Your task to perform on an android device: toggle notification dots Image 0: 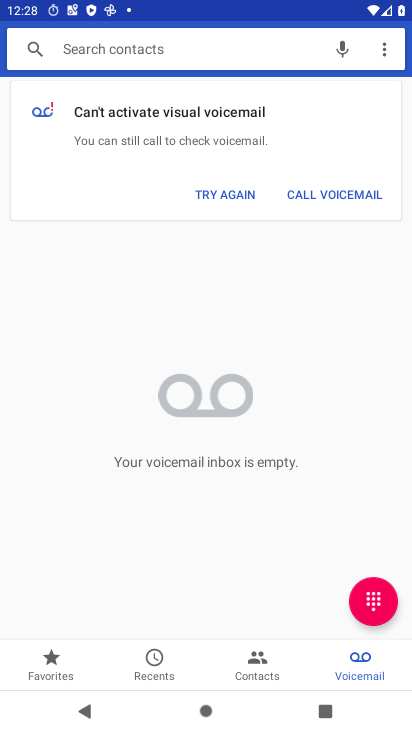
Step 0: press home button
Your task to perform on an android device: toggle notification dots Image 1: 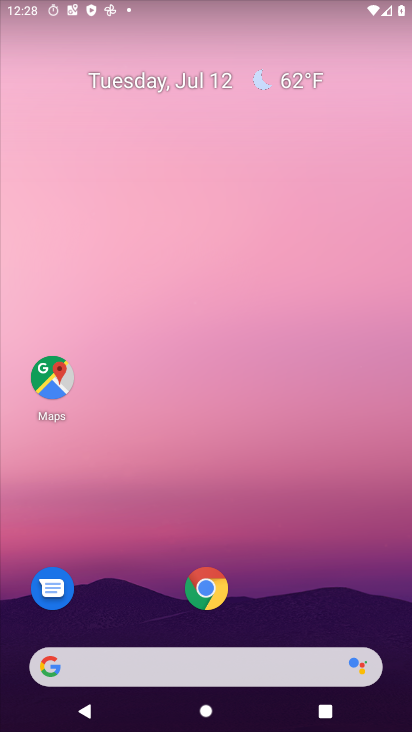
Step 1: drag from (181, 329) to (181, 262)
Your task to perform on an android device: toggle notification dots Image 2: 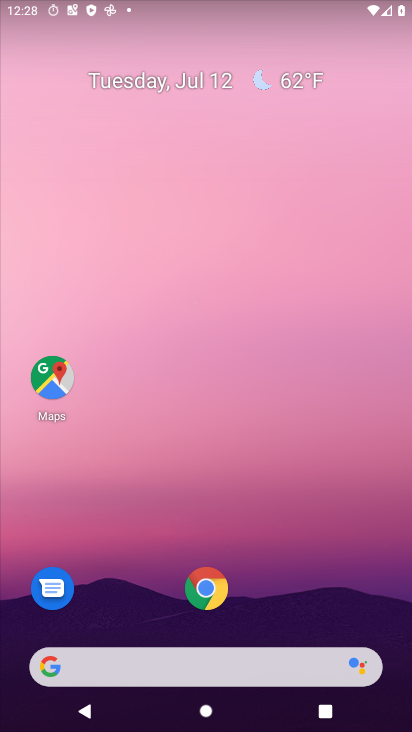
Step 2: drag from (241, 518) to (241, 193)
Your task to perform on an android device: toggle notification dots Image 3: 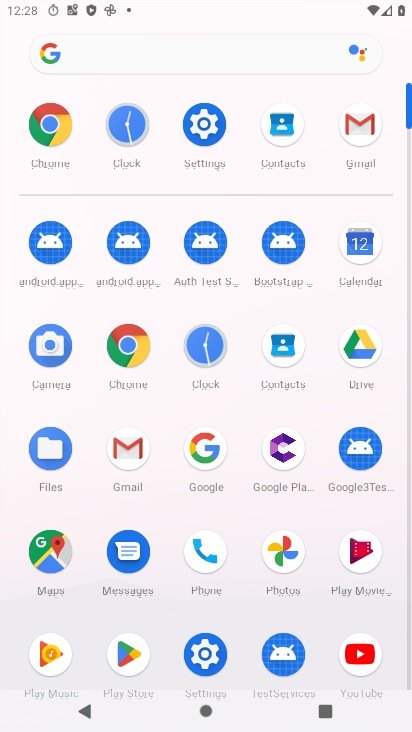
Step 3: click (209, 131)
Your task to perform on an android device: toggle notification dots Image 4: 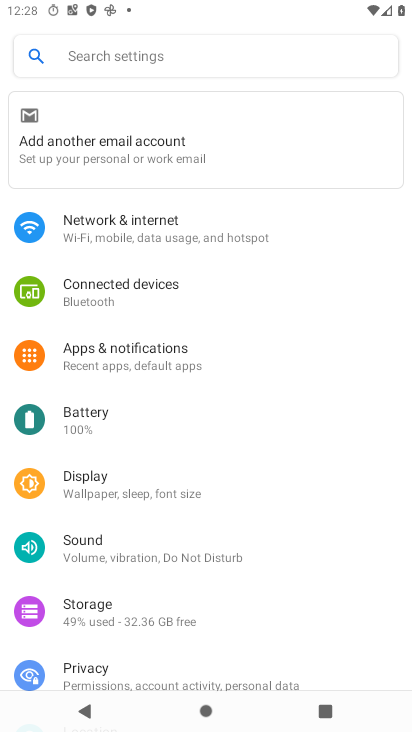
Step 4: click (108, 365)
Your task to perform on an android device: toggle notification dots Image 5: 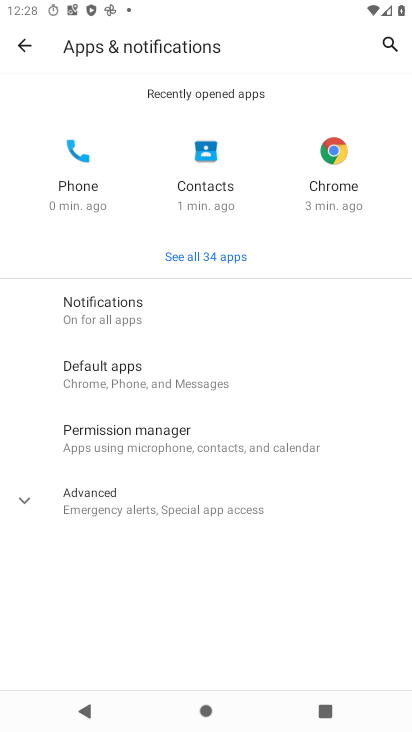
Step 5: click (105, 515)
Your task to perform on an android device: toggle notification dots Image 6: 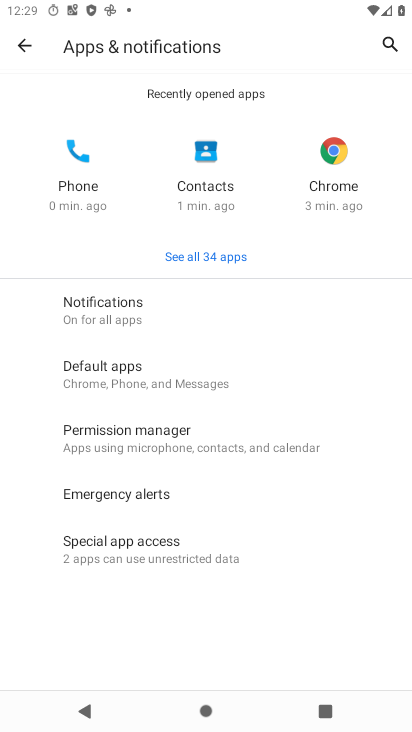
Step 6: click (110, 308)
Your task to perform on an android device: toggle notification dots Image 7: 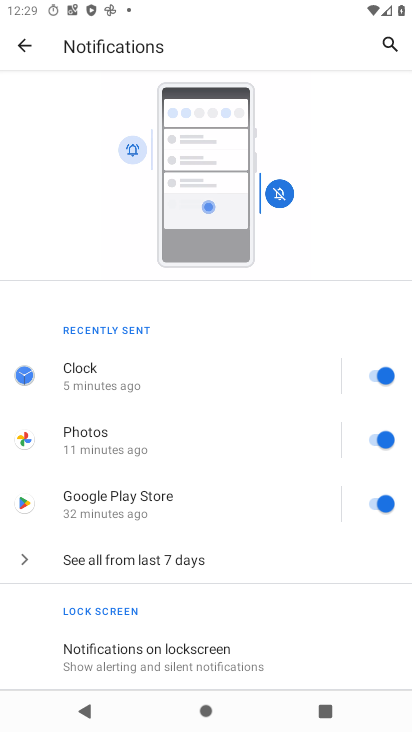
Step 7: click (207, 671)
Your task to perform on an android device: toggle notification dots Image 8: 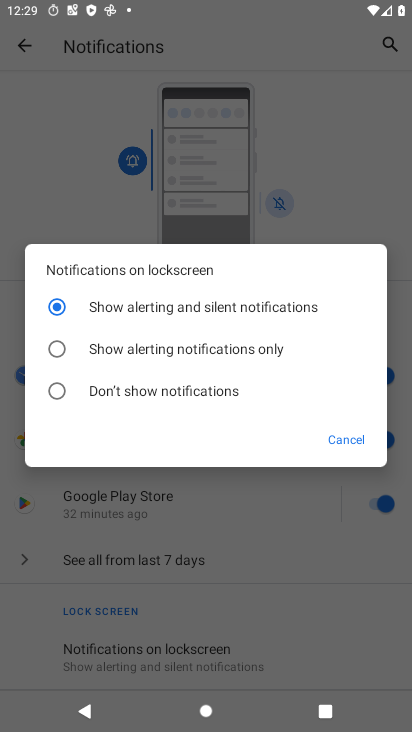
Step 8: click (351, 437)
Your task to perform on an android device: toggle notification dots Image 9: 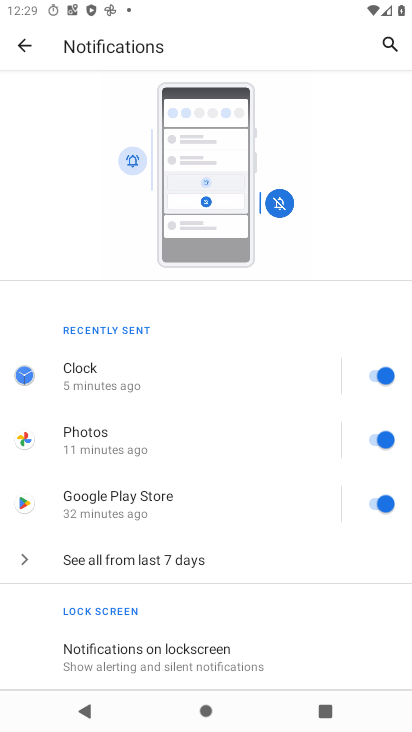
Step 9: drag from (165, 668) to (181, 364)
Your task to perform on an android device: toggle notification dots Image 10: 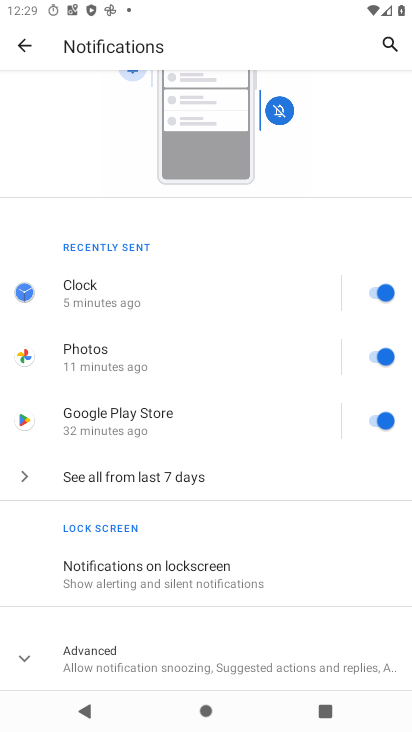
Step 10: click (101, 654)
Your task to perform on an android device: toggle notification dots Image 11: 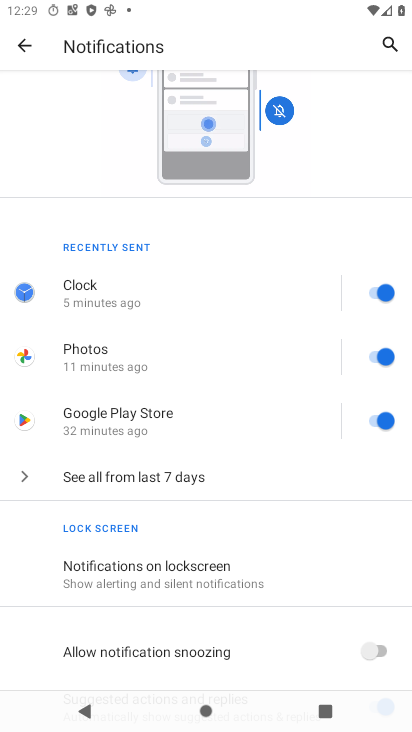
Step 11: drag from (235, 501) to (241, 400)
Your task to perform on an android device: toggle notification dots Image 12: 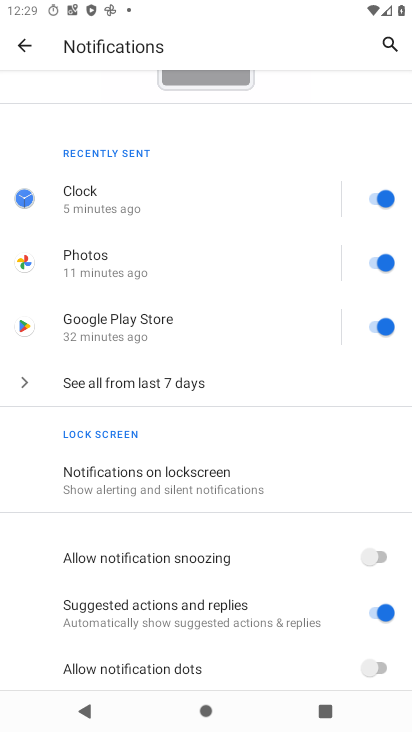
Step 12: click (384, 668)
Your task to perform on an android device: toggle notification dots Image 13: 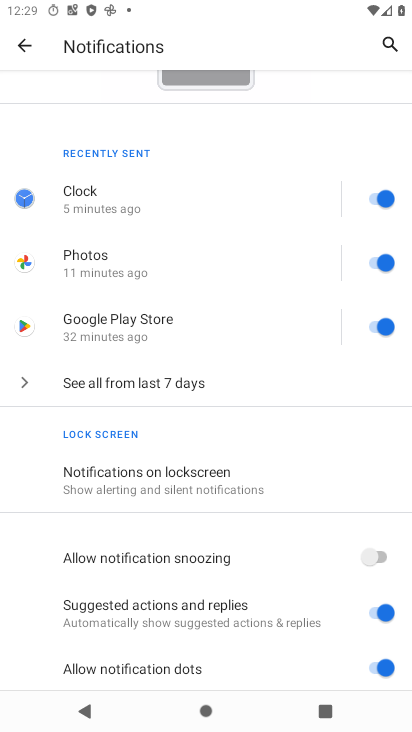
Step 13: task complete